Your task to perform on an android device: stop showing notifications on the lock screen Image 0: 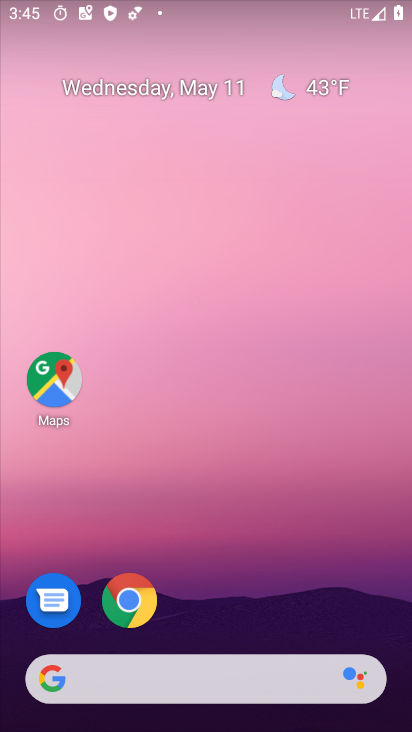
Step 0: drag from (323, 616) to (303, 15)
Your task to perform on an android device: stop showing notifications on the lock screen Image 1: 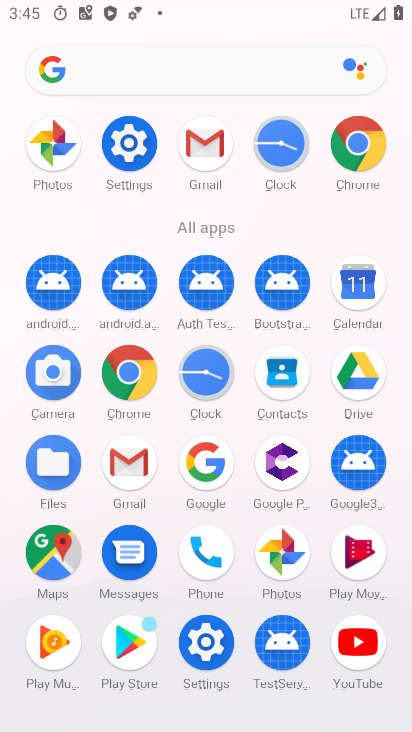
Step 1: click (119, 155)
Your task to perform on an android device: stop showing notifications on the lock screen Image 2: 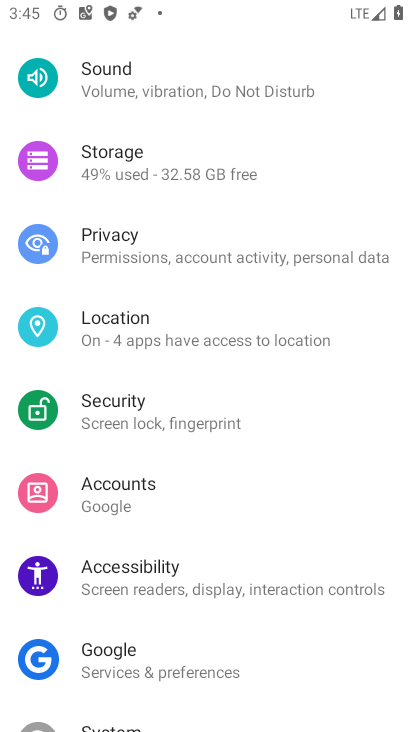
Step 2: drag from (252, 219) to (270, 525)
Your task to perform on an android device: stop showing notifications on the lock screen Image 3: 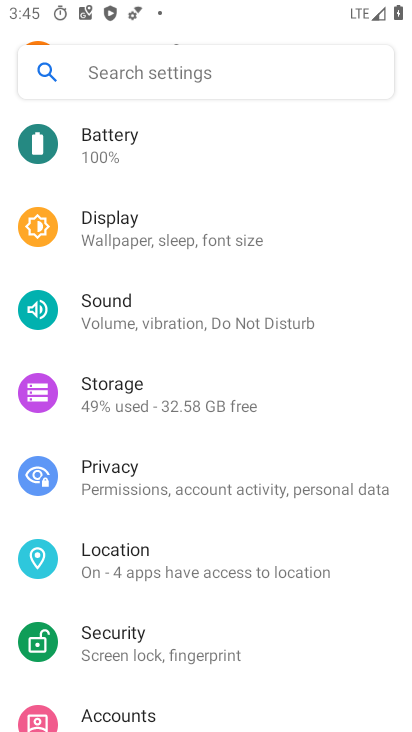
Step 3: drag from (331, 222) to (328, 521)
Your task to perform on an android device: stop showing notifications on the lock screen Image 4: 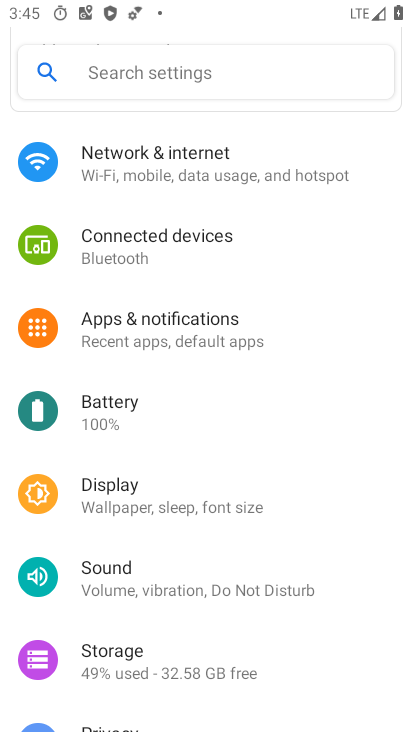
Step 4: click (148, 329)
Your task to perform on an android device: stop showing notifications on the lock screen Image 5: 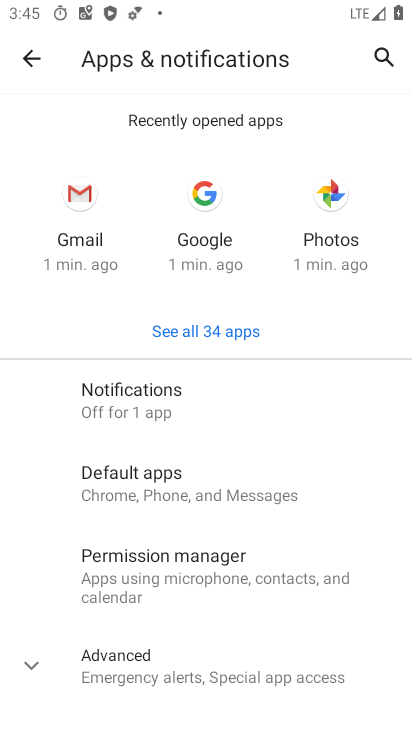
Step 5: click (118, 402)
Your task to perform on an android device: stop showing notifications on the lock screen Image 6: 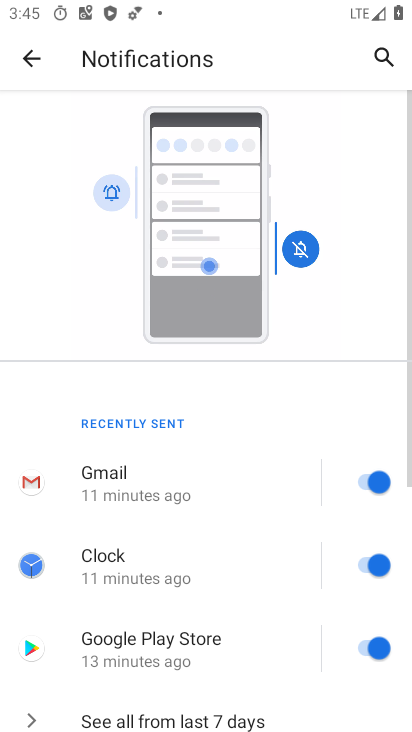
Step 6: drag from (168, 661) to (181, 225)
Your task to perform on an android device: stop showing notifications on the lock screen Image 7: 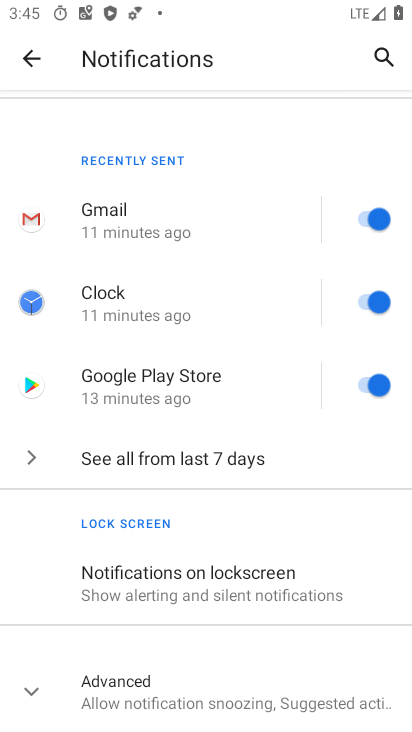
Step 7: click (124, 591)
Your task to perform on an android device: stop showing notifications on the lock screen Image 8: 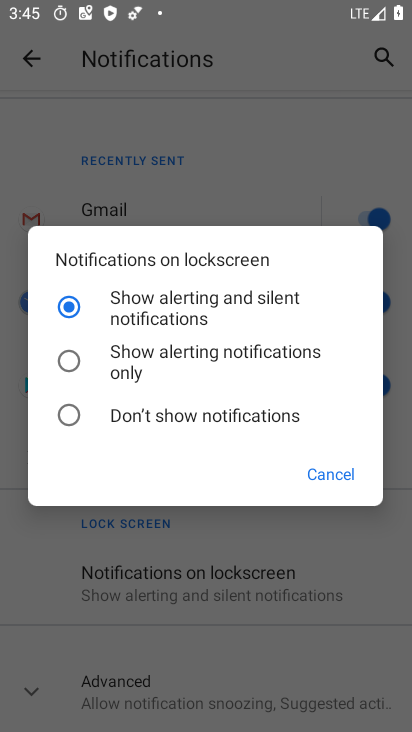
Step 8: click (78, 419)
Your task to perform on an android device: stop showing notifications on the lock screen Image 9: 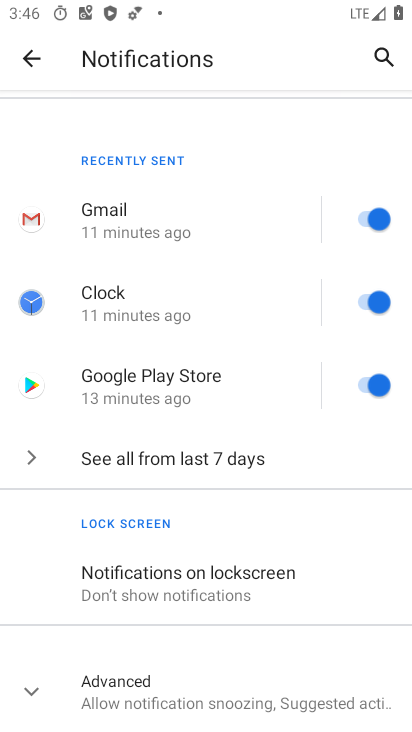
Step 9: task complete